Your task to perform on an android device: uninstall "Expedia: Hotels, Flights & Car" Image 0: 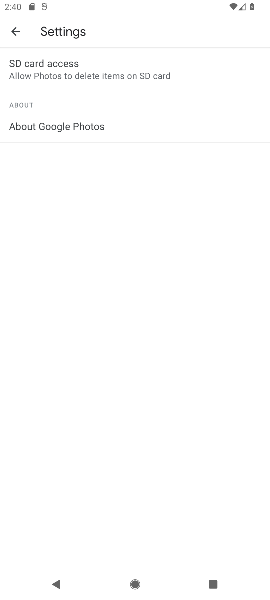
Step 0: press home button
Your task to perform on an android device: uninstall "Expedia: Hotels, Flights & Car" Image 1: 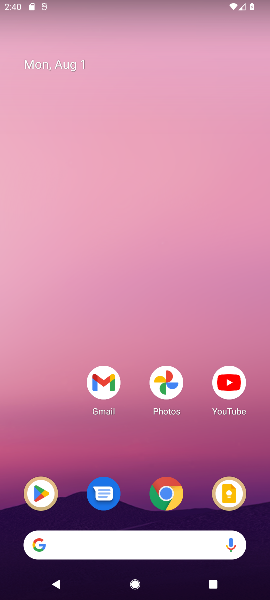
Step 1: click (45, 492)
Your task to perform on an android device: uninstall "Expedia: Hotels, Flights & Car" Image 2: 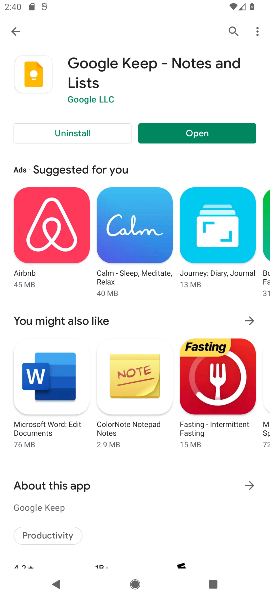
Step 2: click (225, 25)
Your task to perform on an android device: uninstall "Expedia: Hotels, Flights & Car" Image 3: 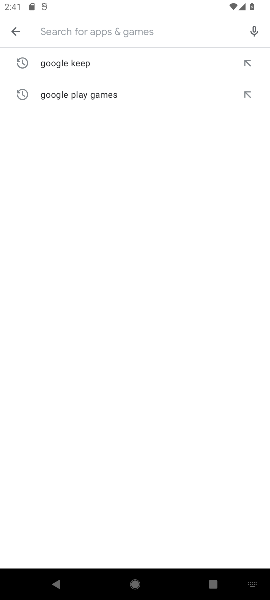
Step 3: type "expedia: hotel, flights & car"
Your task to perform on an android device: uninstall "Expedia: Hotels, Flights & Car" Image 4: 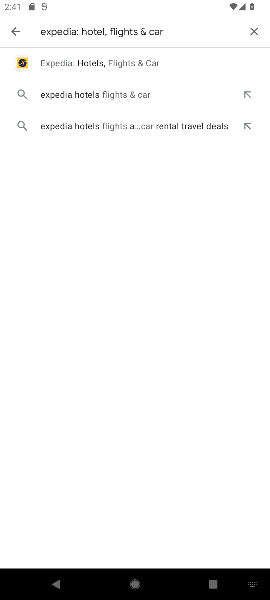
Step 4: click (129, 55)
Your task to perform on an android device: uninstall "Expedia: Hotels, Flights & Car" Image 5: 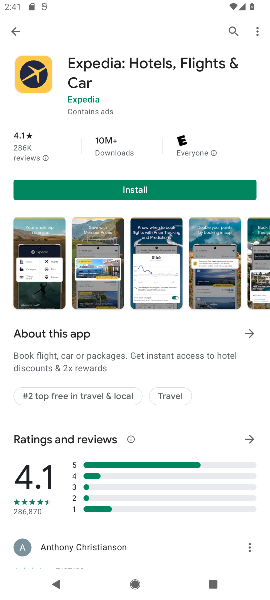
Step 5: task complete